Your task to perform on an android device: Search for sushi restaurants on Maps Image 0: 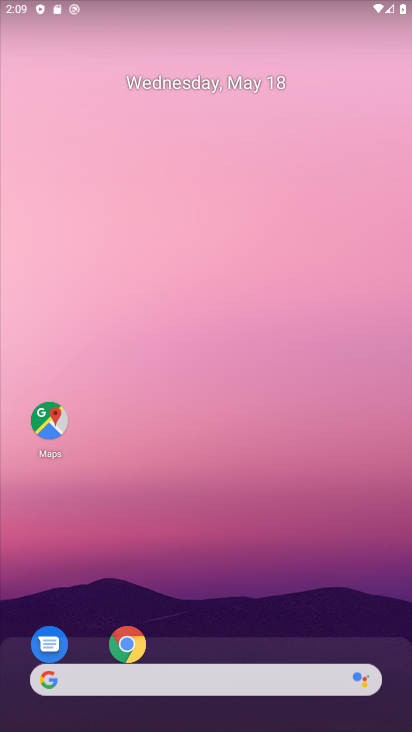
Step 0: click (43, 426)
Your task to perform on an android device: Search for sushi restaurants on Maps Image 1: 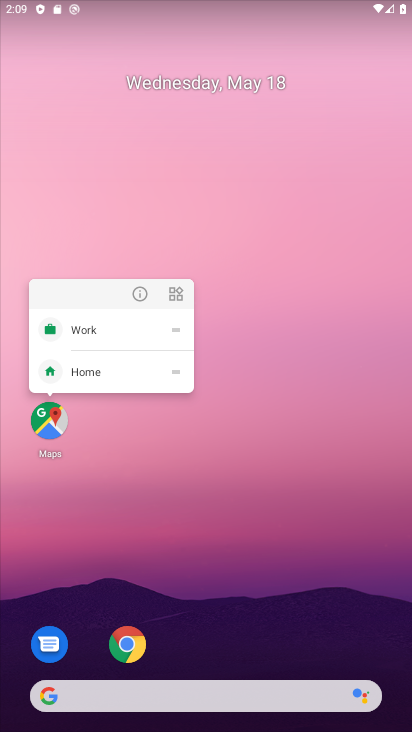
Step 1: click (54, 413)
Your task to perform on an android device: Search for sushi restaurants on Maps Image 2: 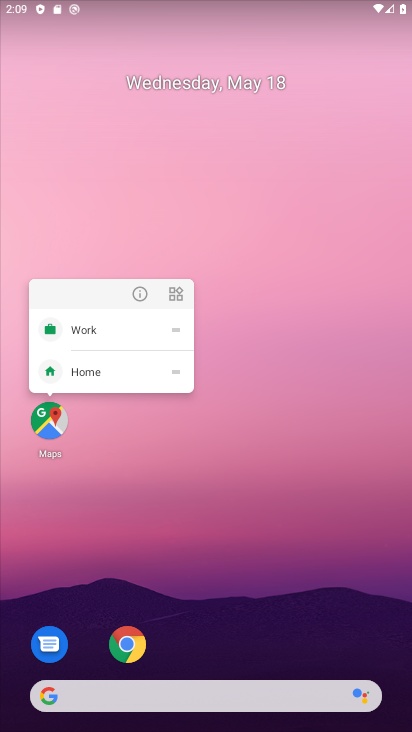
Step 2: click (54, 413)
Your task to perform on an android device: Search for sushi restaurants on Maps Image 3: 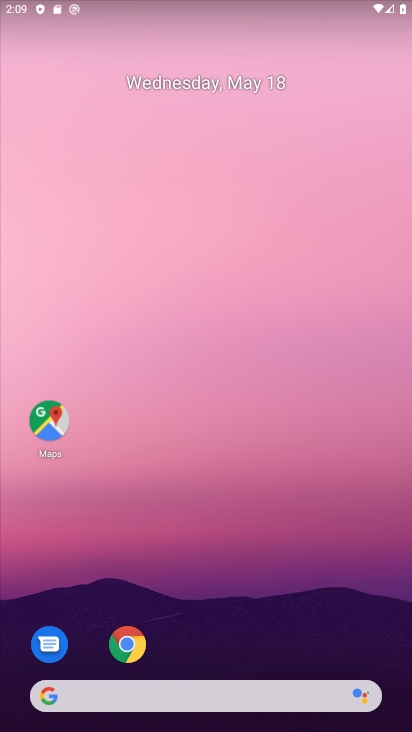
Step 3: click (54, 413)
Your task to perform on an android device: Search for sushi restaurants on Maps Image 4: 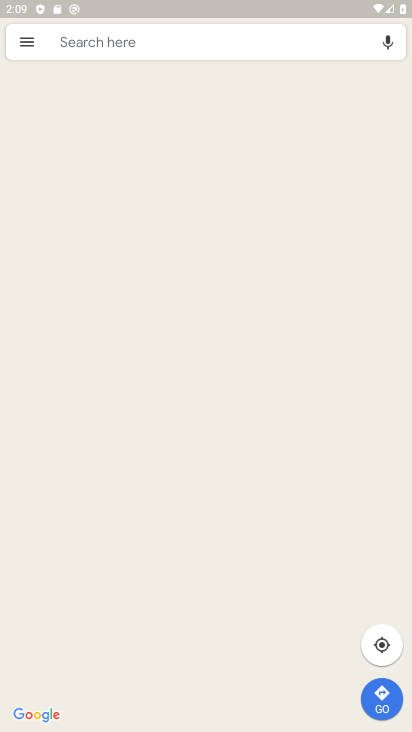
Step 4: click (198, 33)
Your task to perform on an android device: Search for sushi restaurants on Maps Image 5: 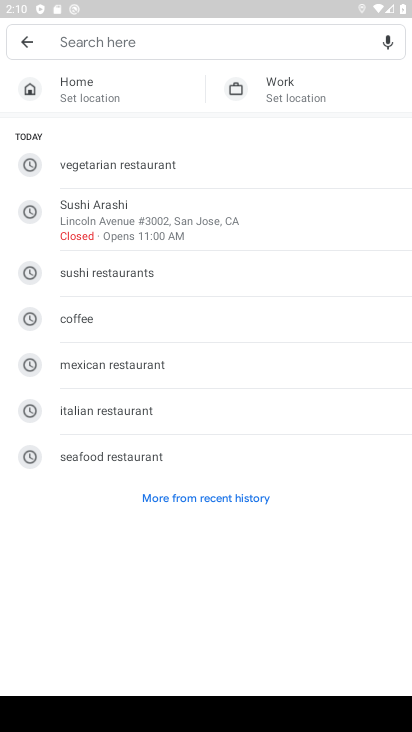
Step 5: click (137, 269)
Your task to perform on an android device: Search for sushi restaurants on Maps Image 6: 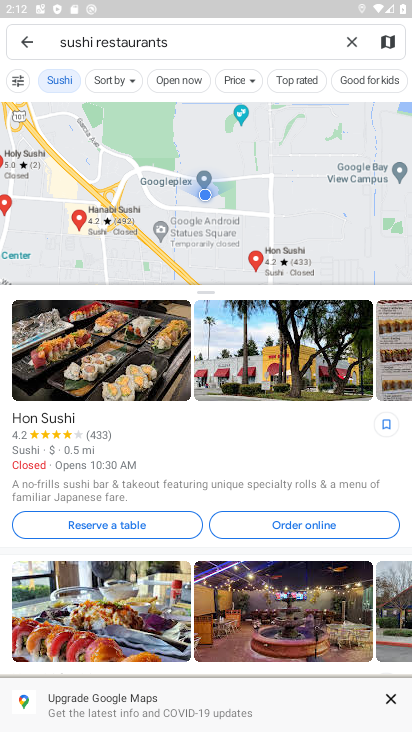
Step 6: task complete